Your task to perform on an android device: Clear the shopping cart on bestbuy. Add "dell xps" to the cart on bestbuy Image 0: 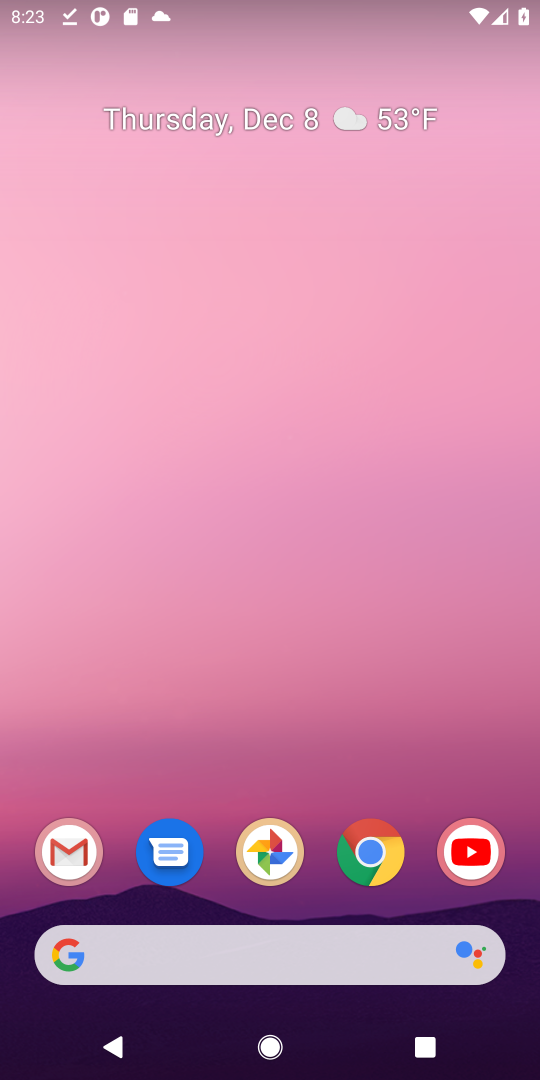
Step 0: click (236, 956)
Your task to perform on an android device: Clear the shopping cart on bestbuy. Add "dell xps" to the cart on bestbuy Image 1: 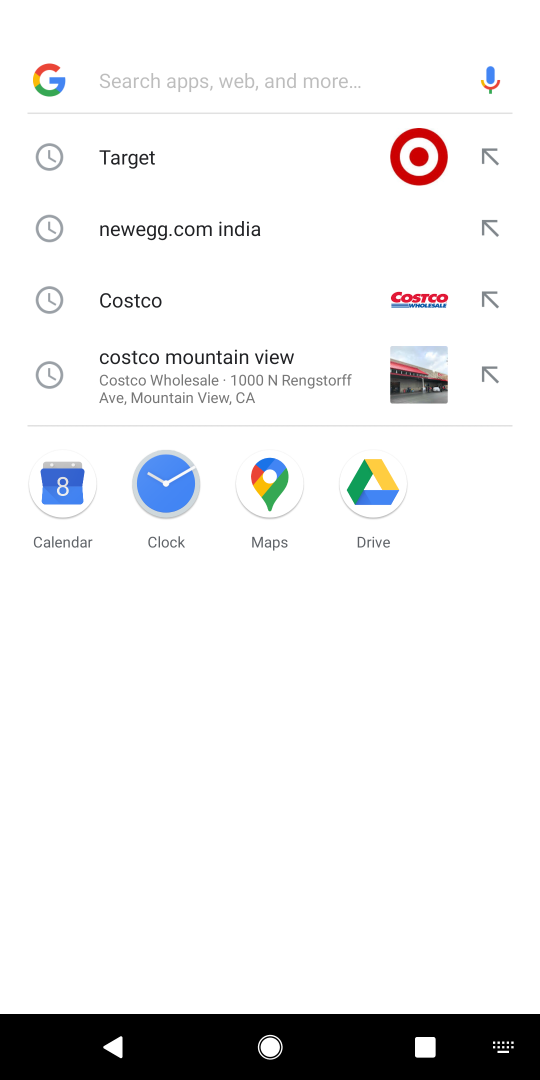
Step 1: type "bestbuy"
Your task to perform on an android device: Clear the shopping cart on bestbuy. Add "dell xps" to the cart on bestbuy Image 2: 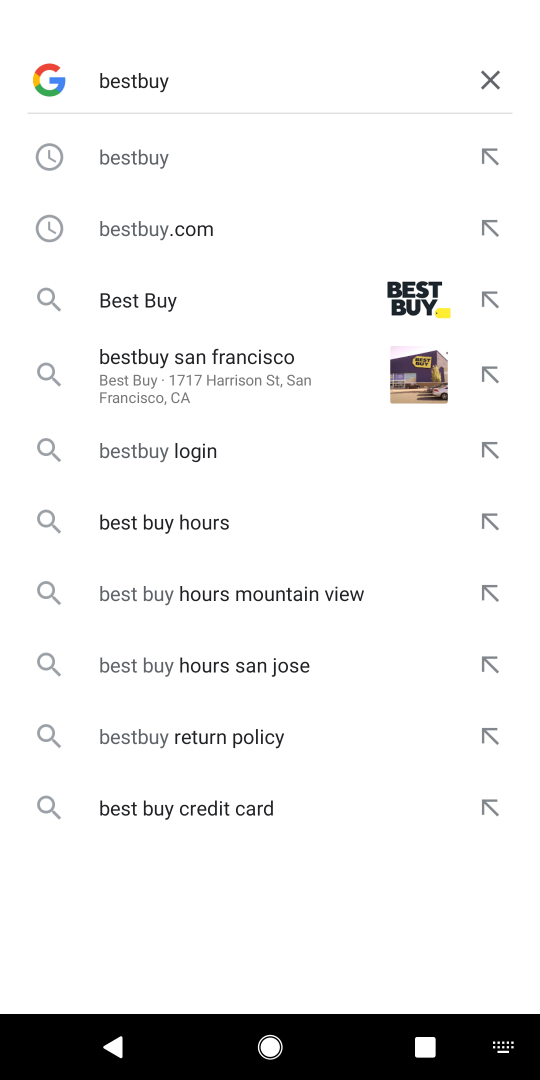
Step 2: click (138, 294)
Your task to perform on an android device: Clear the shopping cart on bestbuy. Add "dell xps" to the cart on bestbuy Image 3: 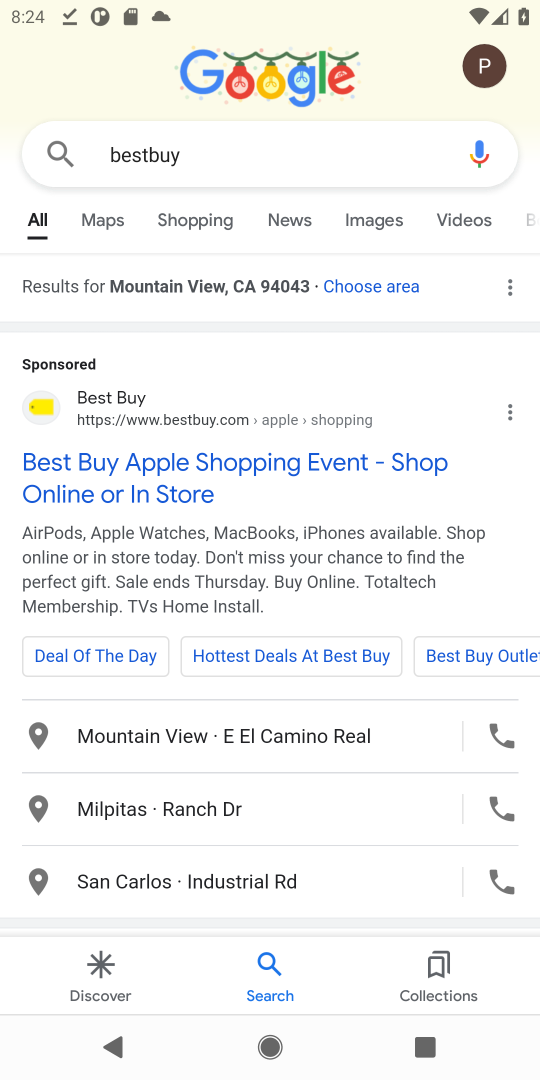
Step 3: click (139, 471)
Your task to perform on an android device: Clear the shopping cart on bestbuy. Add "dell xps" to the cart on bestbuy Image 4: 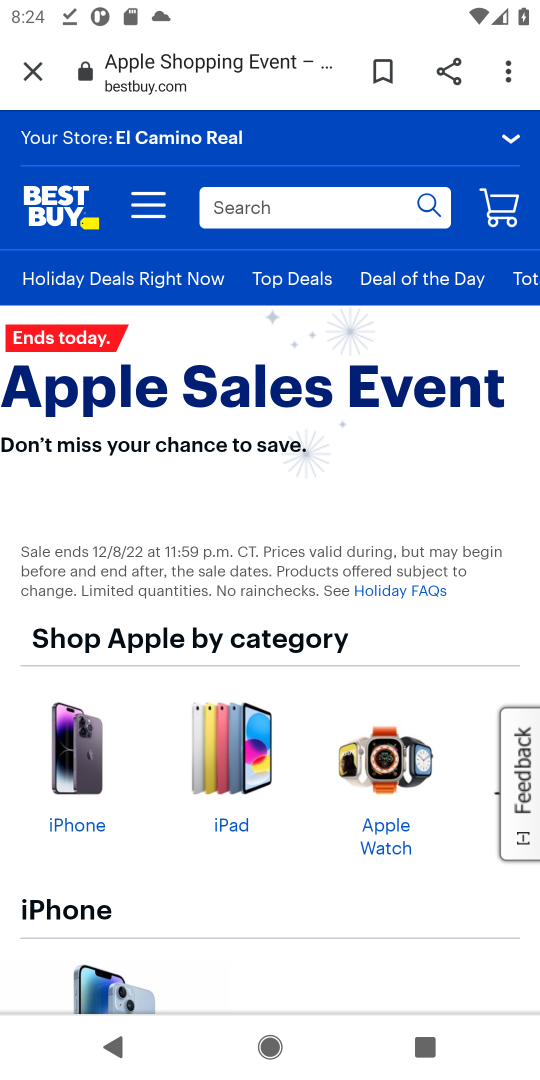
Step 4: click (266, 204)
Your task to perform on an android device: Clear the shopping cart on bestbuy. Add "dell xps" to the cart on bestbuy Image 5: 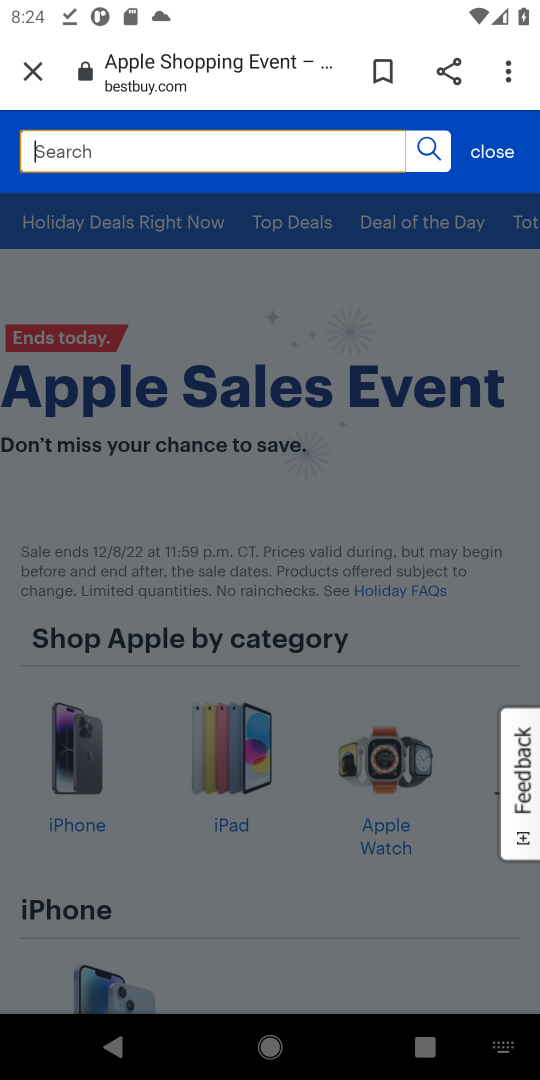
Step 5: type "dell xps"
Your task to perform on an android device: Clear the shopping cart on bestbuy. Add "dell xps" to the cart on bestbuy Image 6: 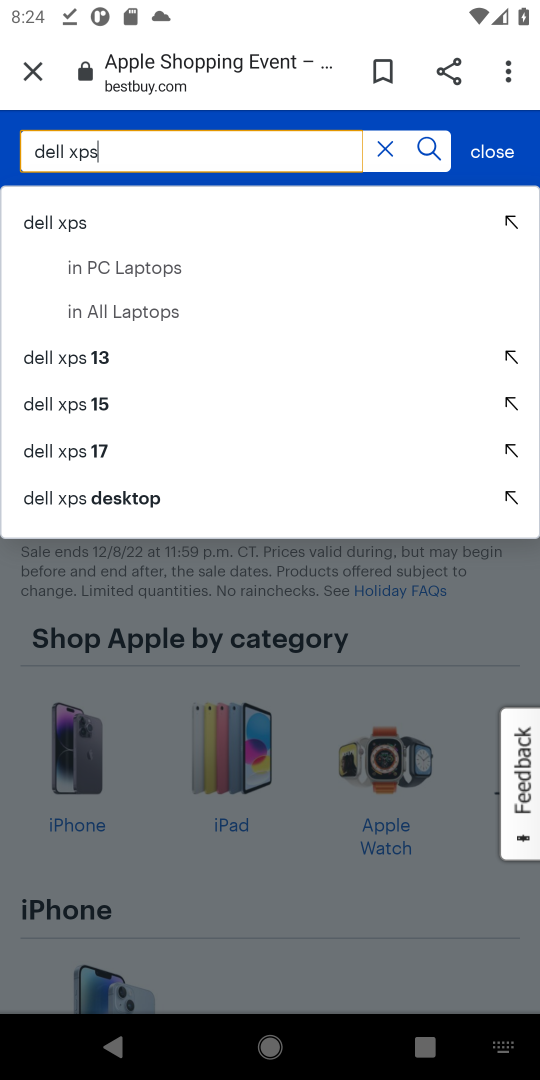
Step 6: click (98, 230)
Your task to perform on an android device: Clear the shopping cart on bestbuy. Add "dell xps" to the cart on bestbuy Image 7: 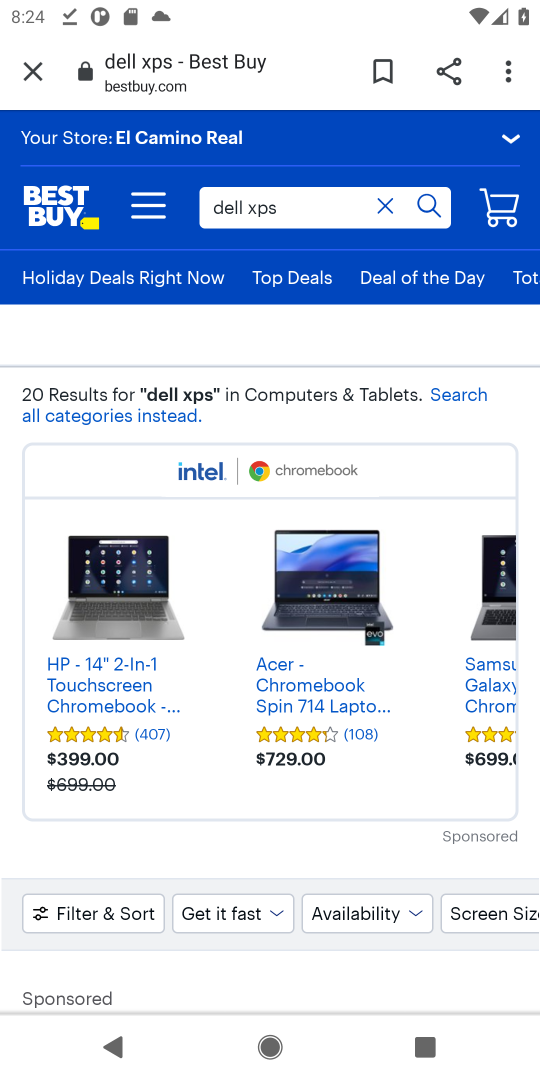
Step 7: task complete